Your task to perform on an android device: Go to Maps Image 0: 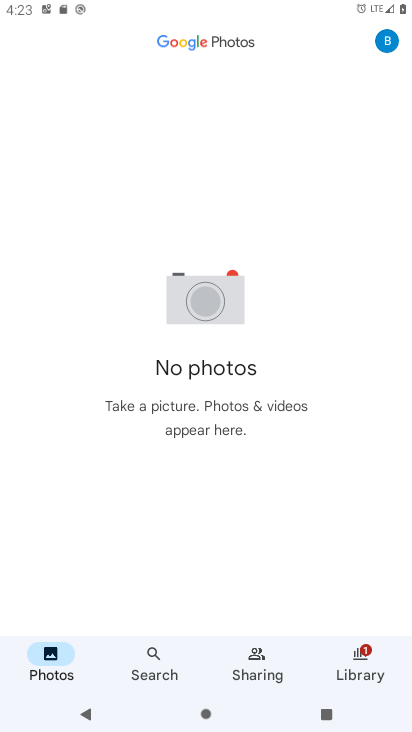
Step 0: press home button
Your task to perform on an android device: Go to Maps Image 1: 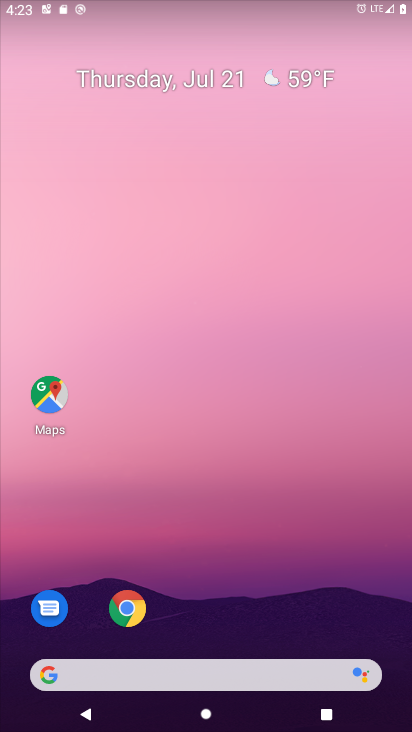
Step 1: drag from (267, 610) to (293, 102)
Your task to perform on an android device: Go to Maps Image 2: 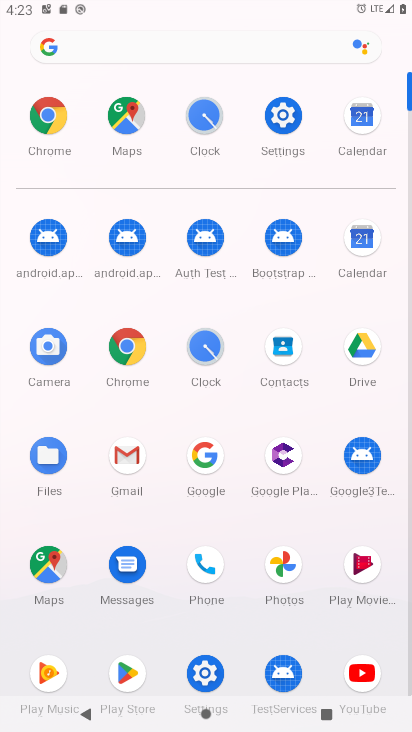
Step 2: click (48, 569)
Your task to perform on an android device: Go to Maps Image 3: 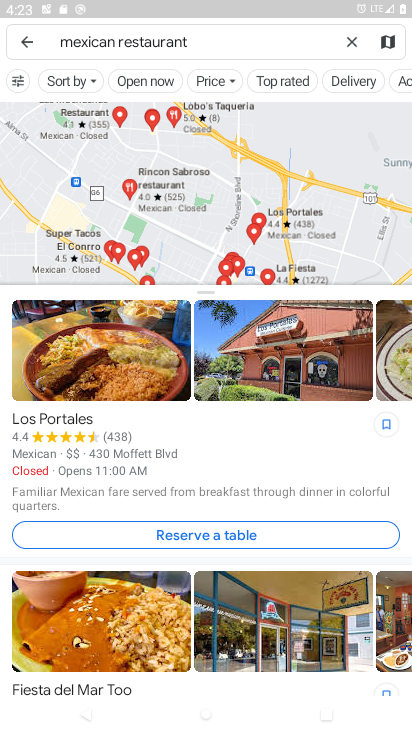
Step 3: task complete